Your task to perform on an android device: Add "energizer triple a" to the cart on walmart Image 0: 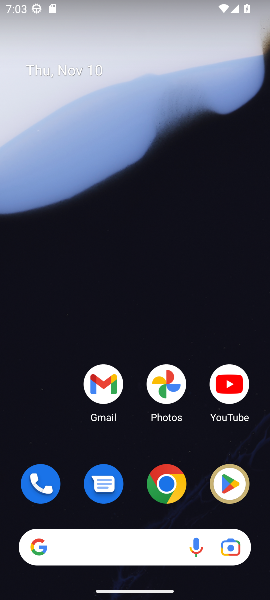
Step 0: click (164, 485)
Your task to perform on an android device: Add "energizer triple a" to the cart on walmart Image 1: 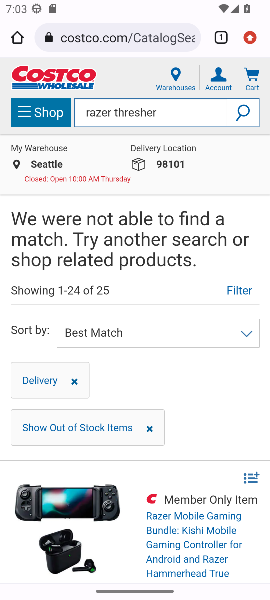
Step 1: click (91, 42)
Your task to perform on an android device: Add "energizer triple a" to the cart on walmart Image 2: 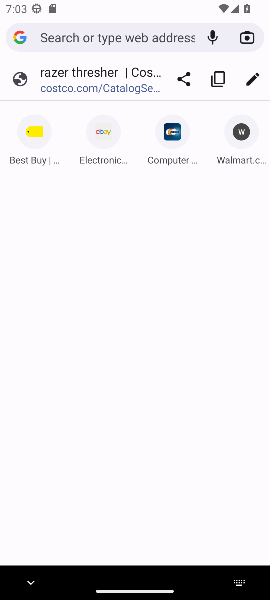
Step 2: click (236, 150)
Your task to perform on an android device: Add "energizer triple a" to the cart on walmart Image 3: 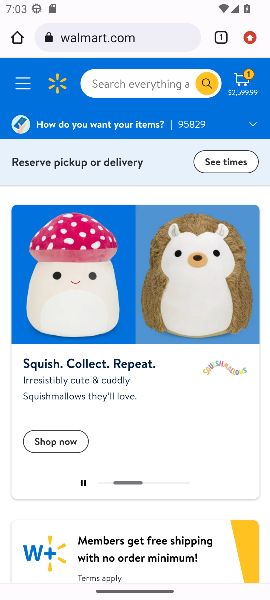
Step 3: click (148, 89)
Your task to perform on an android device: Add "energizer triple a" to the cart on walmart Image 4: 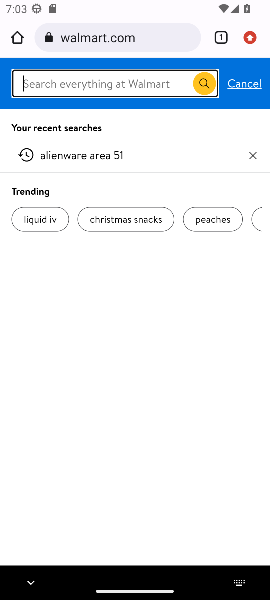
Step 4: type "energizer triple a"
Your task to perform on an android device: Add "energizer triple a" to the cart on walmart Image 5: 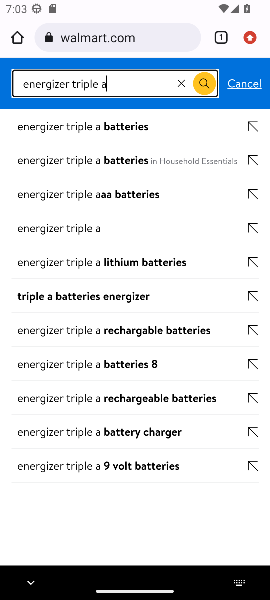
Step 5: click (67, 227)
Your task to perform on an android device: Add "energizer triple a" to the cart on walmart Image 6: 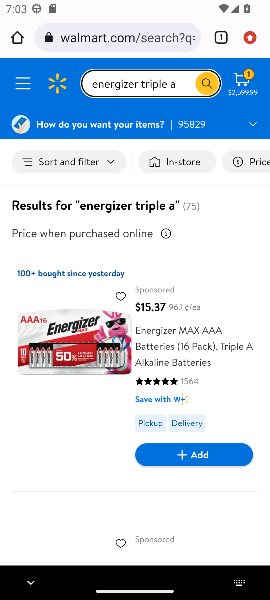
Step 6: click (167, 454)
Your task to perform on an android device: Add "energizer triple a" to the cart on walmart Image 7: 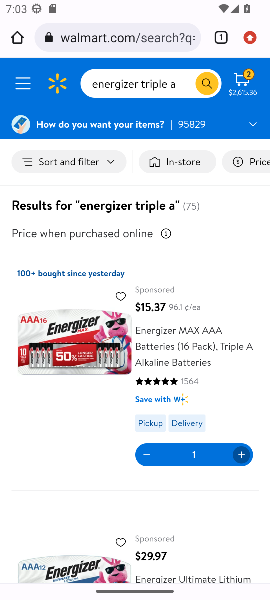
Step 7: task complete